Your task to perform on an android device: Go to Google maps Image 0: 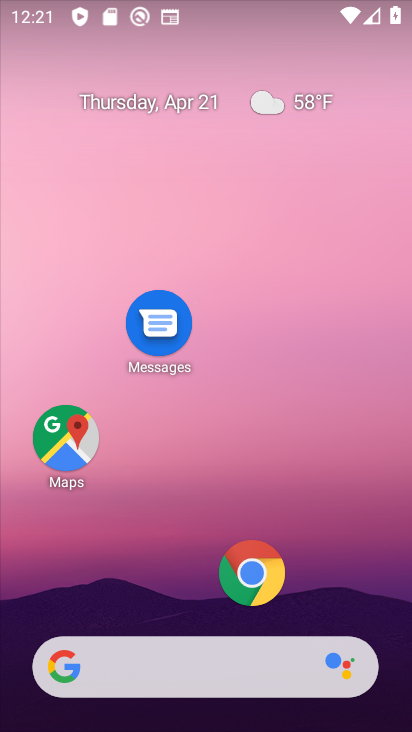
Step 0: click (67, 439)
Your task to perform on an android device: Go to Google maps Image 1: 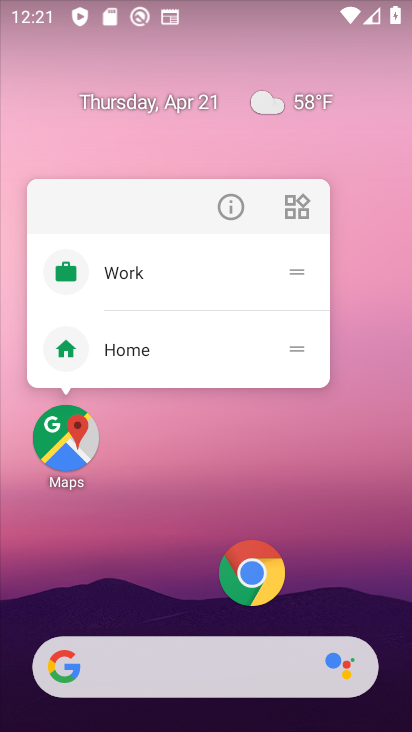
Step 1: click (67, 439)
Your task to perform on an android device: Go to Google maps Image 2: 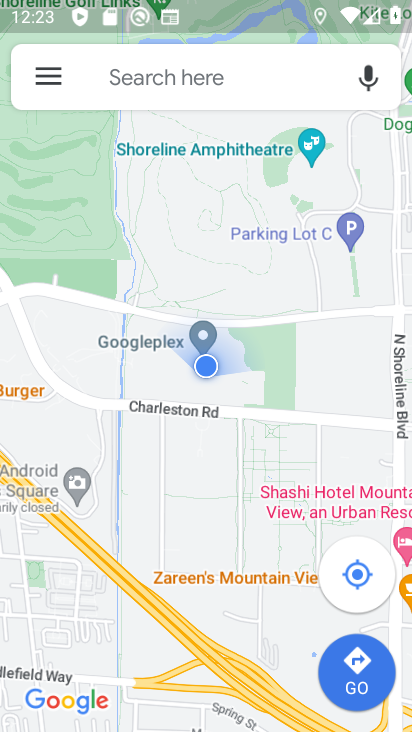
Step 2: task complete